Your task to perform on an android device: See recent photos Image 0: 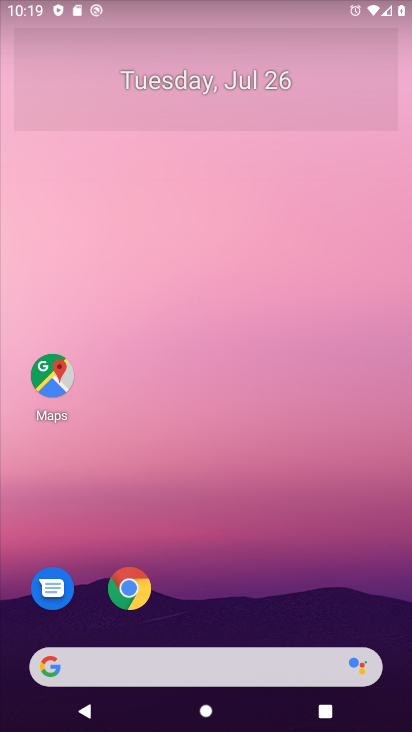
Step 0: drag from (234, 640) to (219, 0)
Your task to perform on an android device: See recent photos Image 1: 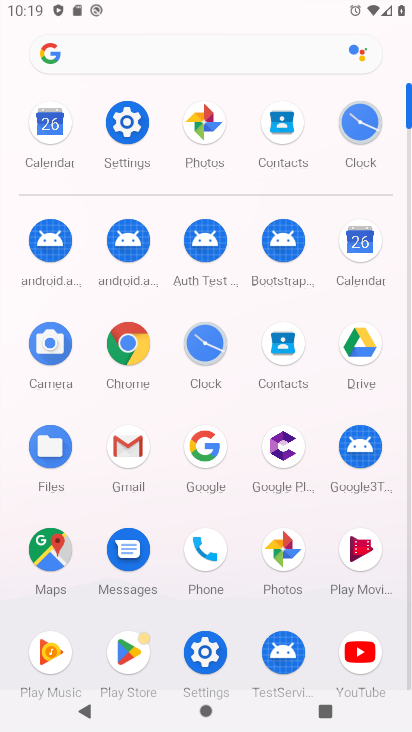
Step 1: click (269, 567)
Your task to perform on an android device: See recent photos Image 2: 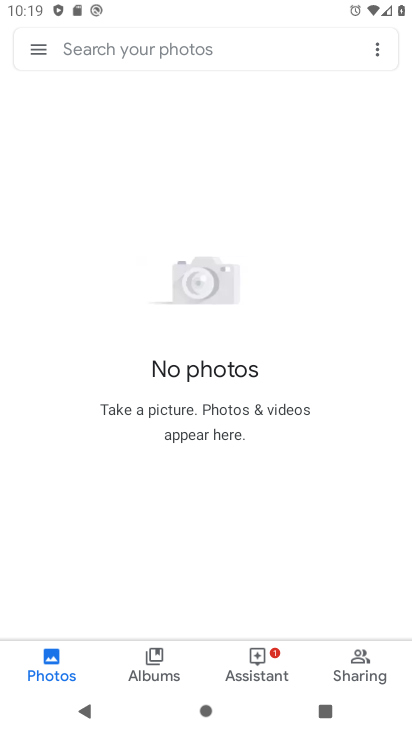
Step 2: click (38, 662)
Your task to perform on an android device: See recent photos Image 3: 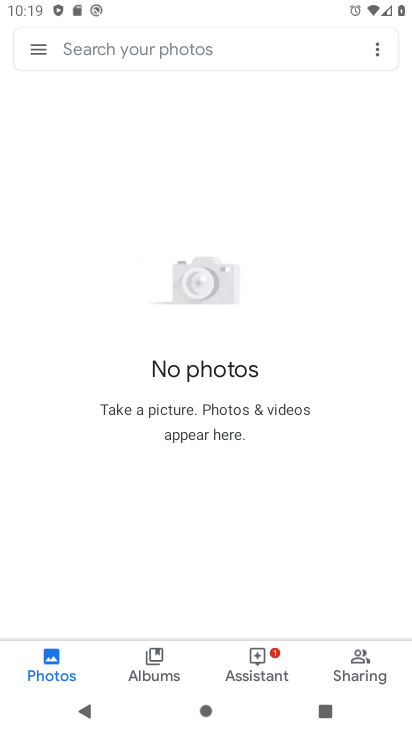
Step 3: task complete